Your task to perform on an android device: change notification settings in the gmail app Image 0: 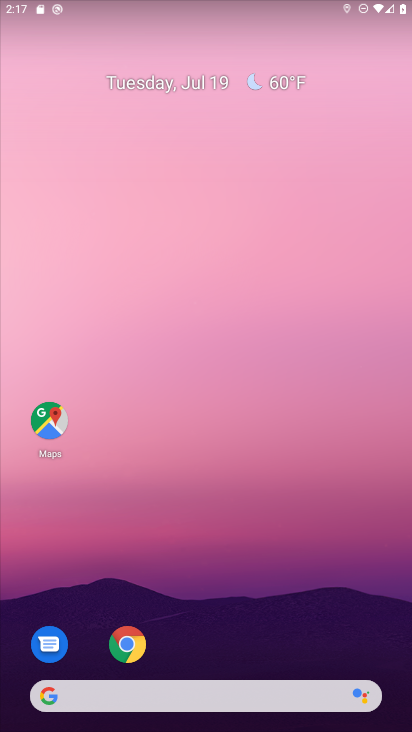
Step 0: drag from (199, 650) to (185, 11)
Your task to perform on an android device: change notification settings in the gmail app Image 1: 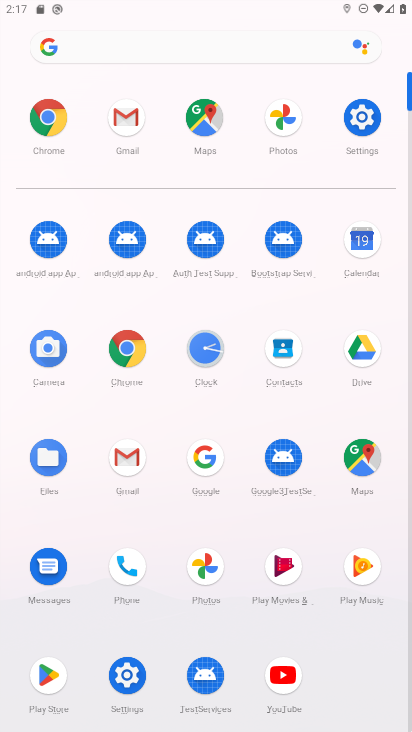
Step 1: click (128, 466)
Your task to perform on an android device: change notification settings in the gmail app Image 2: 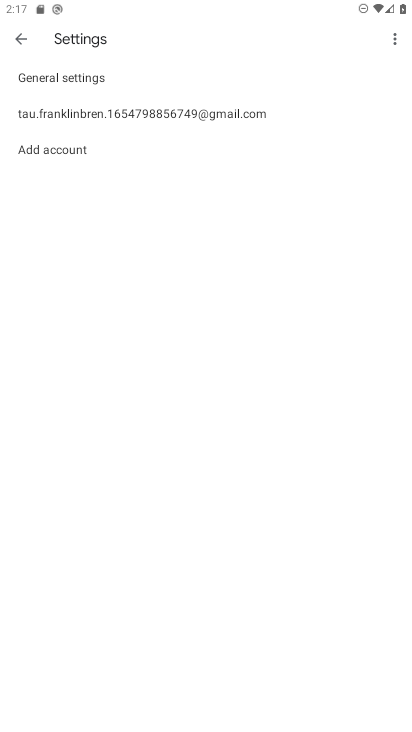
Step 2: click (63, 70)
Your task to perform on an android device: change notification settings in the gmail app Image 3: 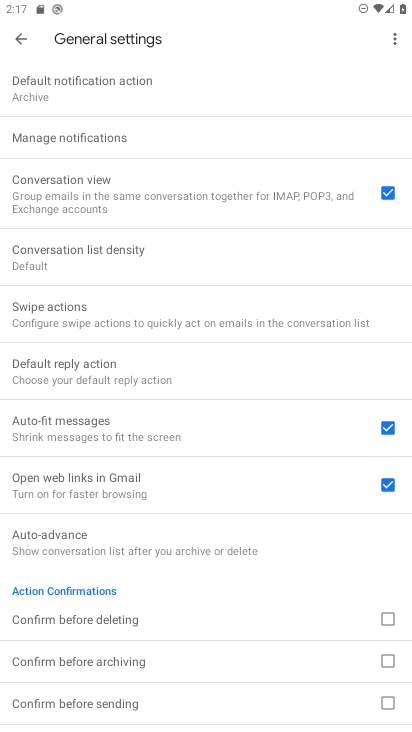
Step 3: click (90, 134)
Your task to perform on an android device: change notification settings in the gmail app Image 4: 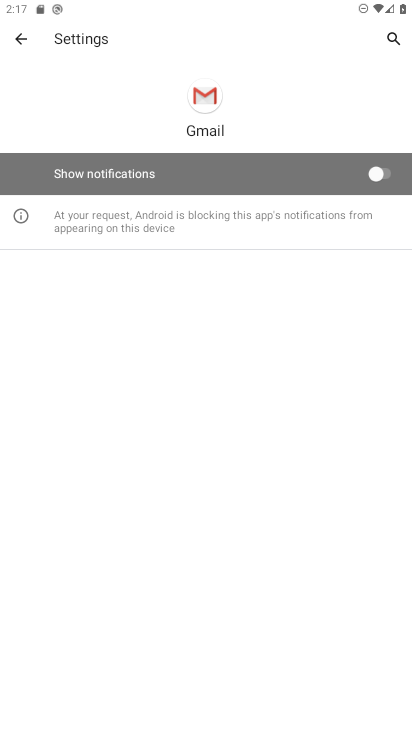
Step 4: click (375, 168)
Your task to perform on an android device: change notification settings in the gmail app Image 5: 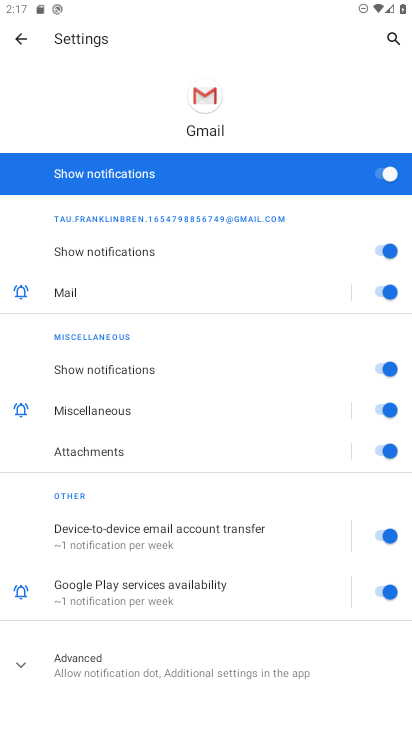
Step 5: task complete